Your task to perform on an android device: Open notification settings Image 0: 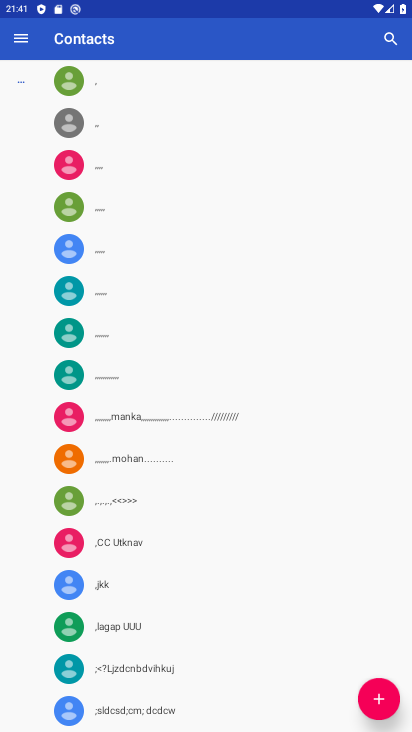
Step 0: press home button
Your task to perform on an android device: Open notification settings Image 1: 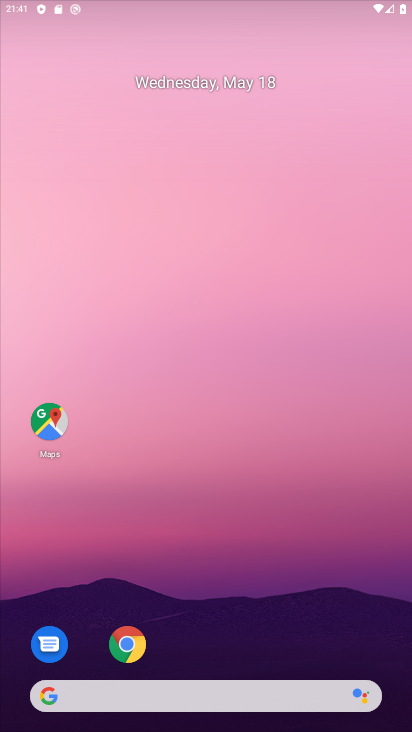
Step 1: drag from (323, 436) to (320, 75)
Your task to perform on an android device: Open notification settings Image 2: 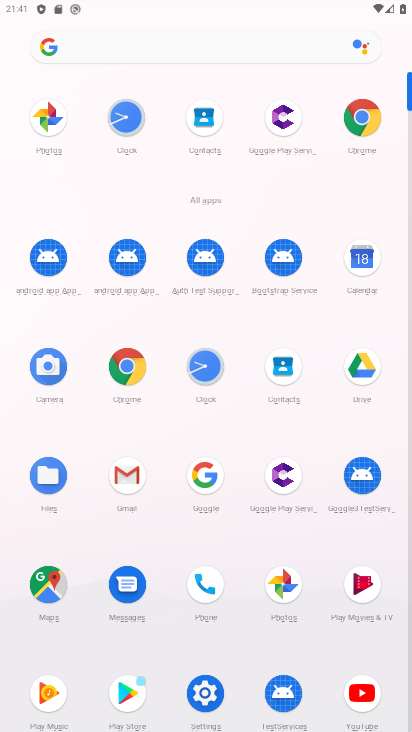
Step 2: click (200, 688)
Your task to perform on an android device: Open notification settings Image 3: 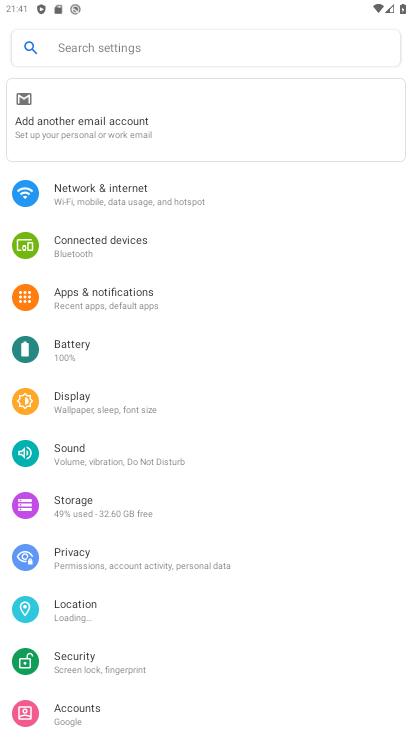
Step 3: click (139, 304)
Your task to perform on an android device: Open notification settings Image 4: 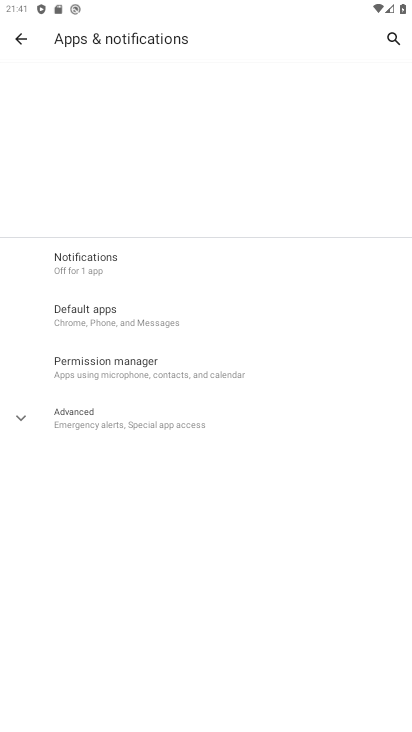
Step 4: click (119, 272)
Your task to perform on an android device: Open notification settings Image 5: 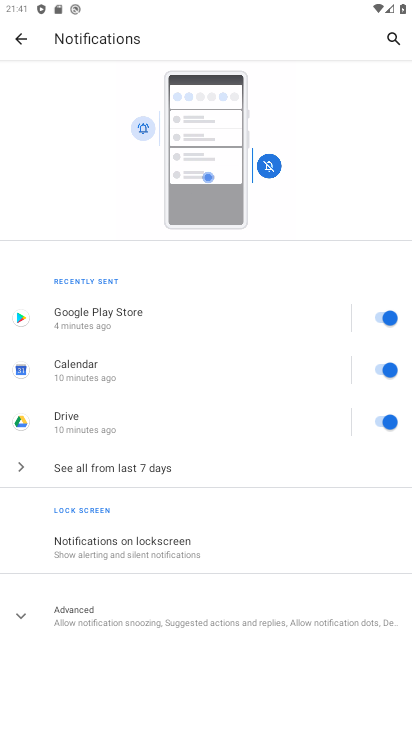
Step 5: task complete